Your task to perform on an android device: Find coffee shops on Maps Image 0: 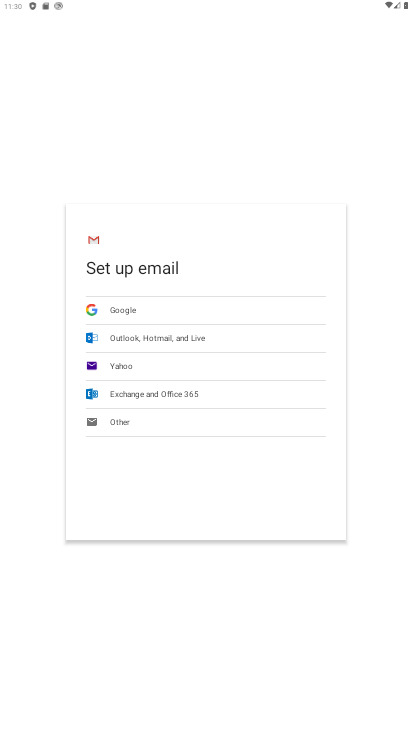
Step 0: press home button
Your task to perform on an android device: Find coffee shops on Maps Image 1: 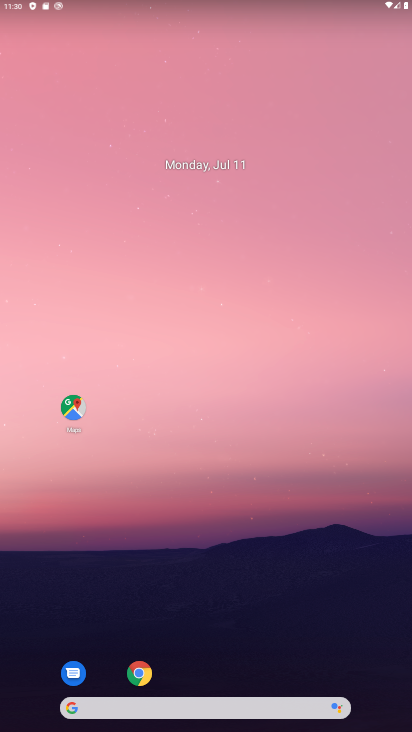
Step 1: drag from (220, 682) to (350, 254)
Your task to perform on an android device: Find coffee shops on Maps Image 2: 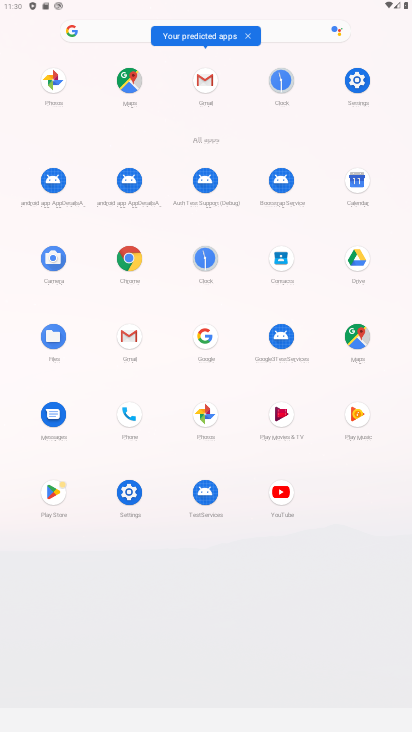
Step 2: click (355, 335)
Your task to perform on an android device: Find coffee shops on Maps Image 3: 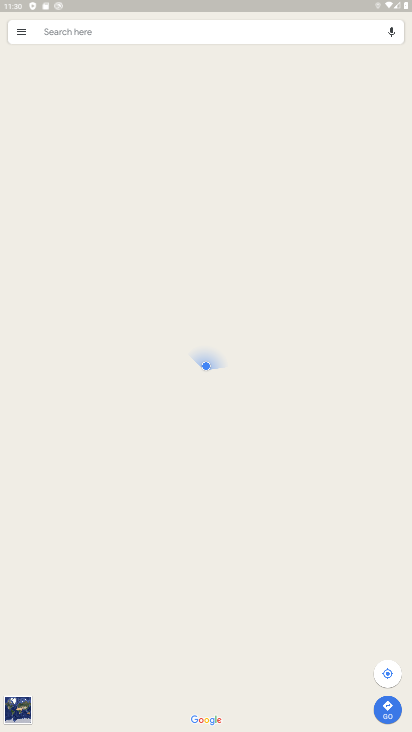
Step 3: click (216, 28)
Your task to perform on an android device: Find coffee shops on Maps Image 4: 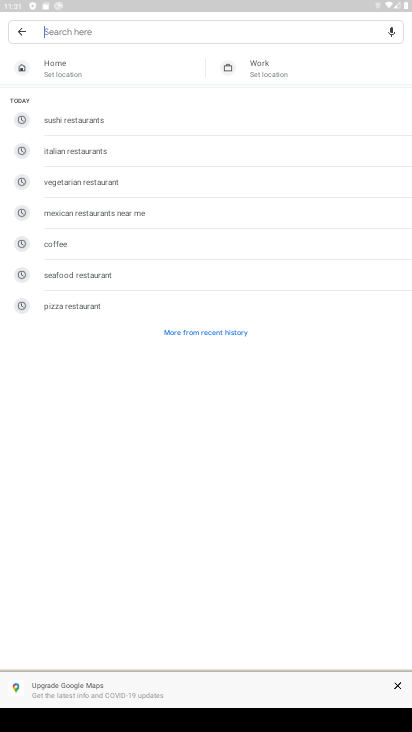
Step 4: type "coffee shops"
Your task to perform on an android device: Find coffee shops on Maps Image 5: 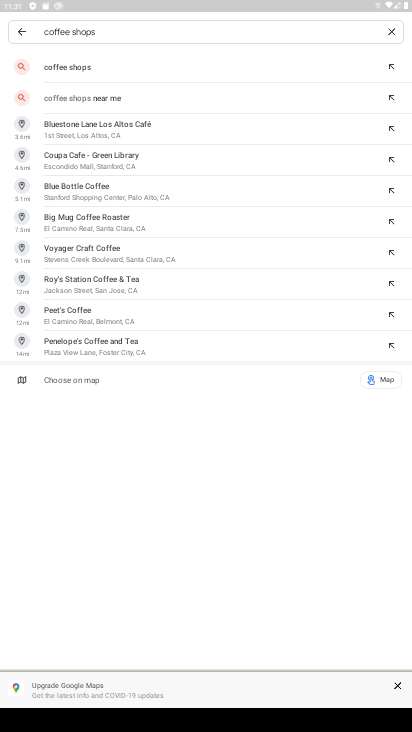
Step 5: click (124, 72)
Your task to perform on an android device: Find coffee shops on Maps Image 6: 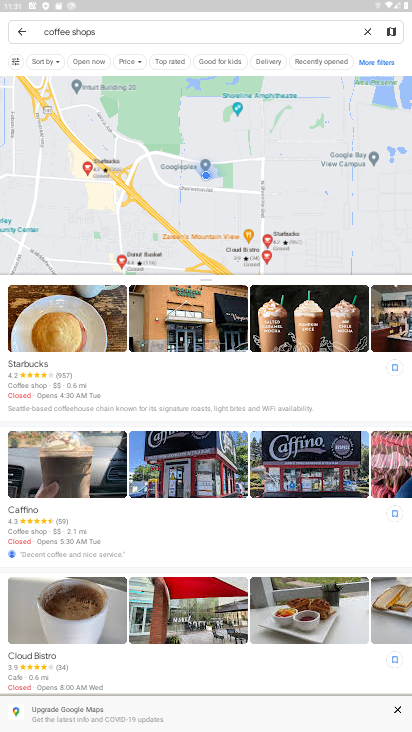
Step 6: task complete